Your task to perform on an android device: Open network settings Image 0: 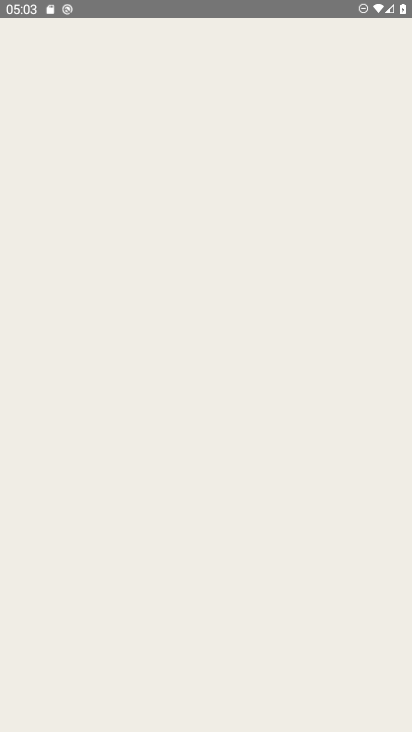
Step 0: drag from (325, 632) to (388, 579)
Your task to perform on an android device: Open network settings Image 1: 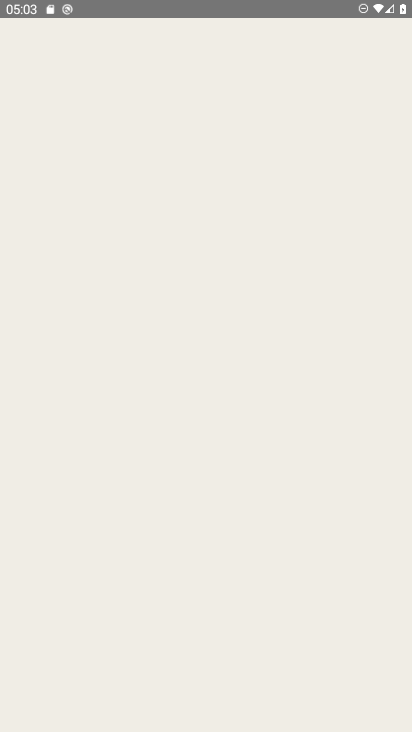
Step 1: press home button
Your task to perform on an android device: Open network settings Image 2: 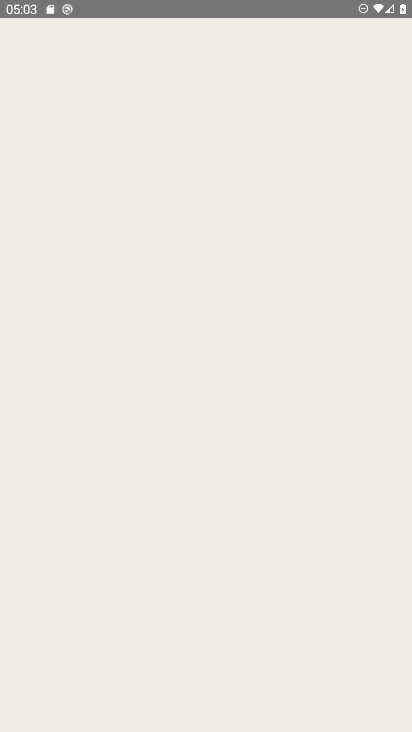
Step 2: click (406, 486)
Your task to perform on an android device: Open network settings Image 3: 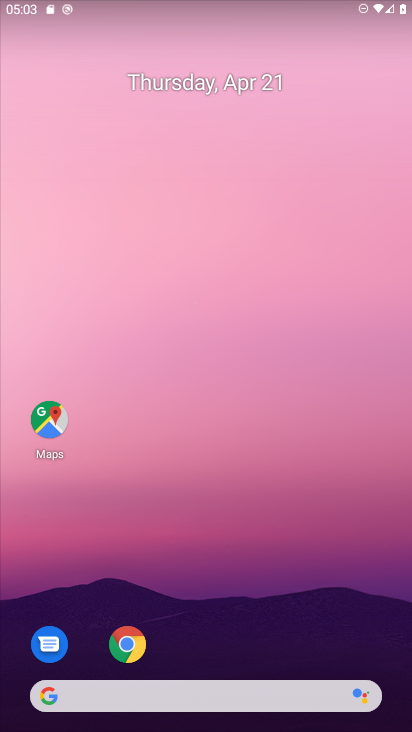
Step 3: drag from (309, 591) to (344, 108)
Your task to perform on an android device: Open network settings Image 4: 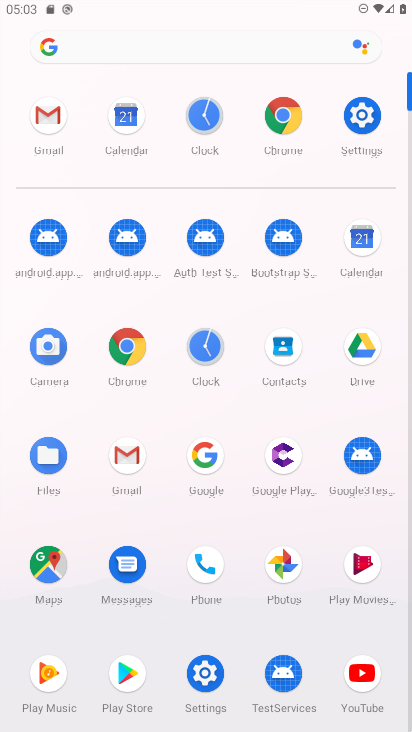
Step 4: click (206, 667)
Your task to perform on an android device: Open network settings Image 5: 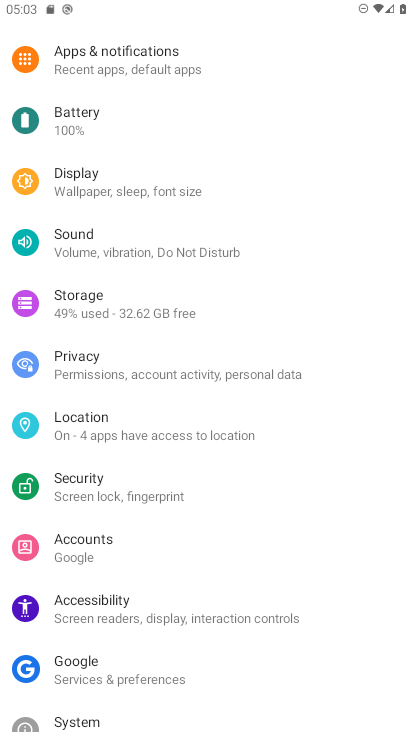
Step 5: drag from (217, 102) to (185, 500)
Your task to perform on an android device: Open network settings Image 6: 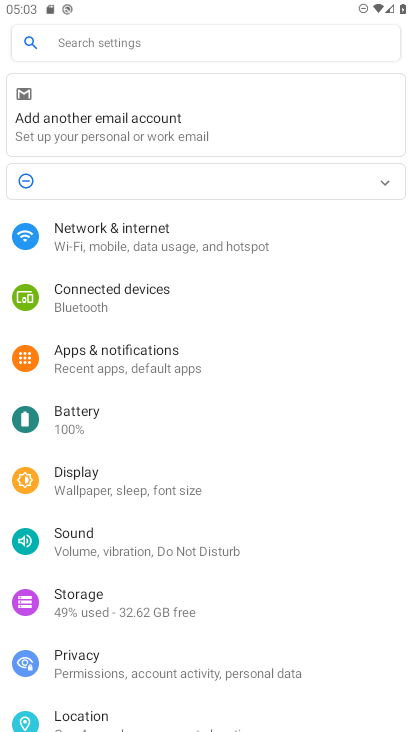
Step 6: click (225, 234)
Your task to perform on an android device: Open network settings Image 7: 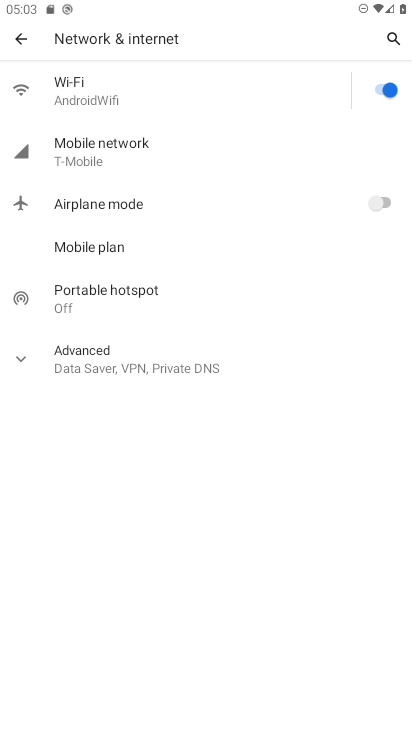
Step 7: task complete